Your task to perform on an android device: toggle show notifications on the lock screen Image 0: 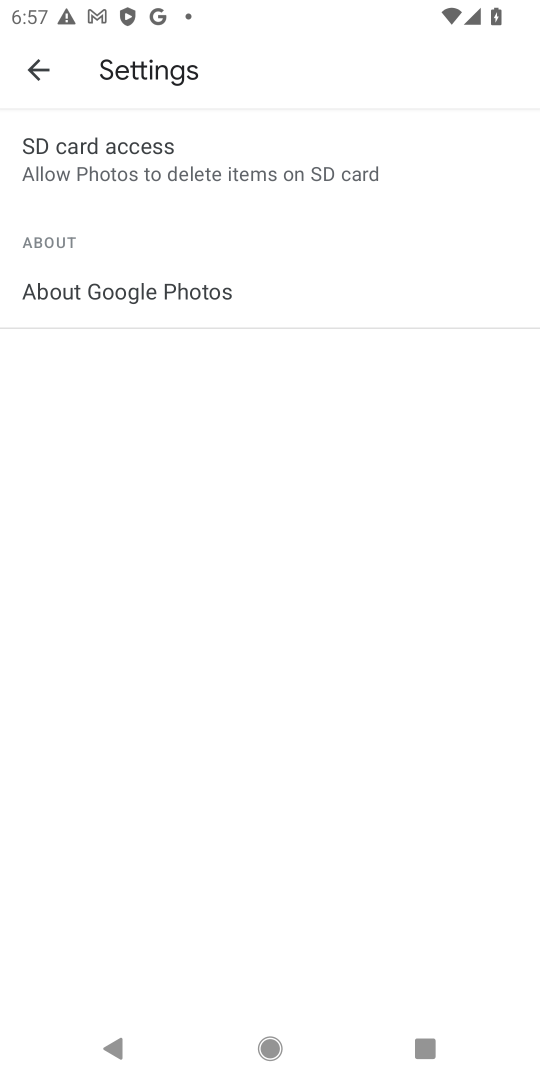
Step 0: press home button
Your task to perform on an android device: toggle show notifications on the lock screen Image 1: 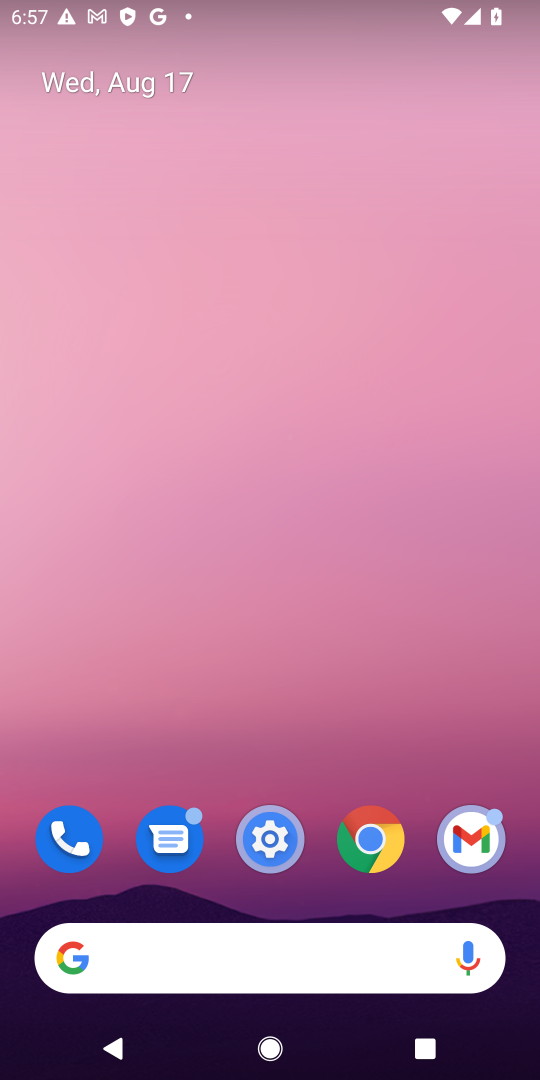
Step 1: click (275, 848)
Your task to perform on an android device: toggle show notifications on the lock screen Image 2: 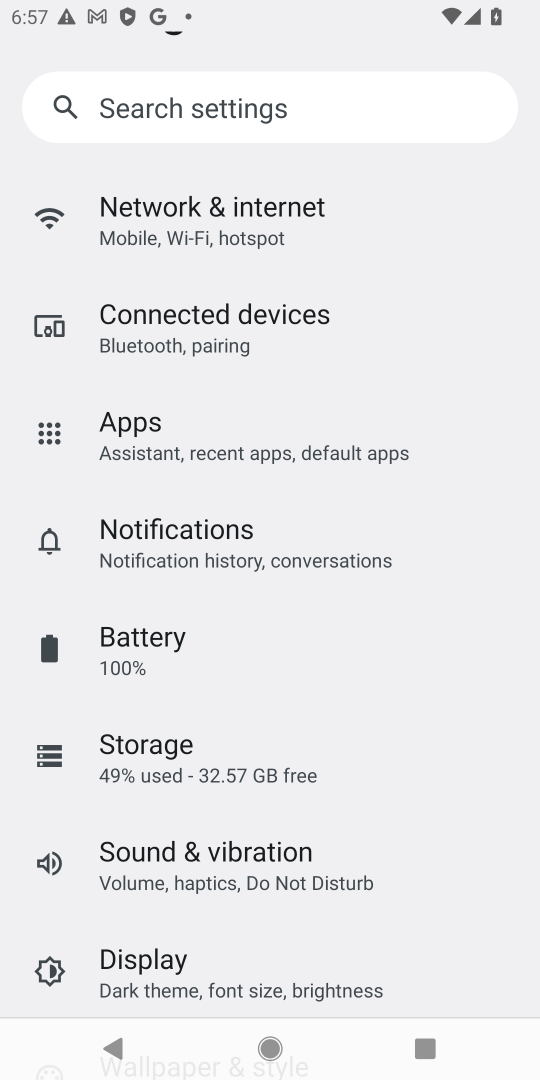
Step 2: drag from (277, 849) to (212, 247)
Your task to perform on an android device: toggle show notifications on the lock screen Image 3: 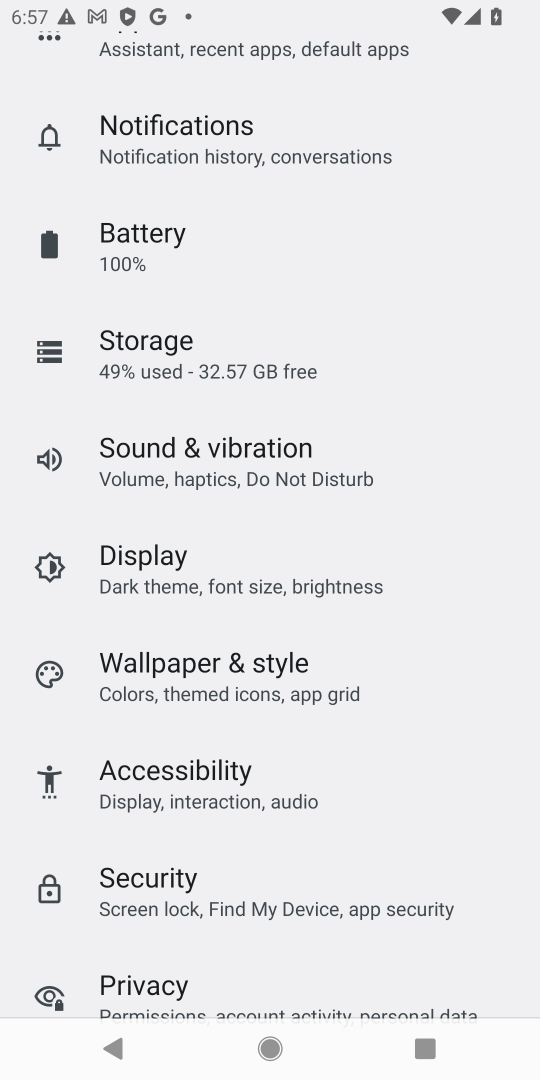
Step 3: click (176, 128)
Your task to perform on an android device: toggle show notifications on the lock screen Image 4: 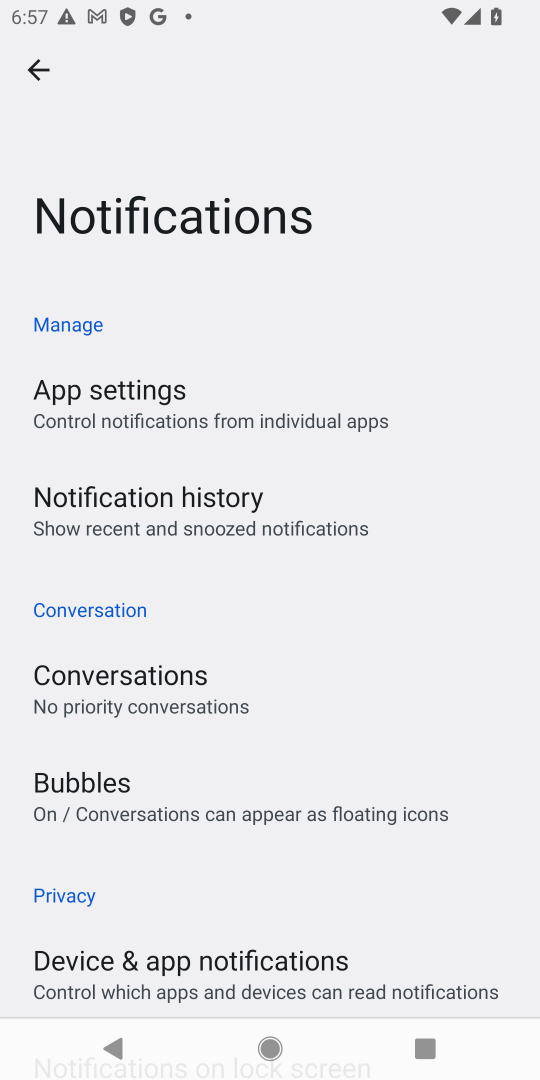
Step 4: drag from (155, 763) to (108, 375)
Your task to perform on an android device: toggle show notifications on the lock screen Image 5: 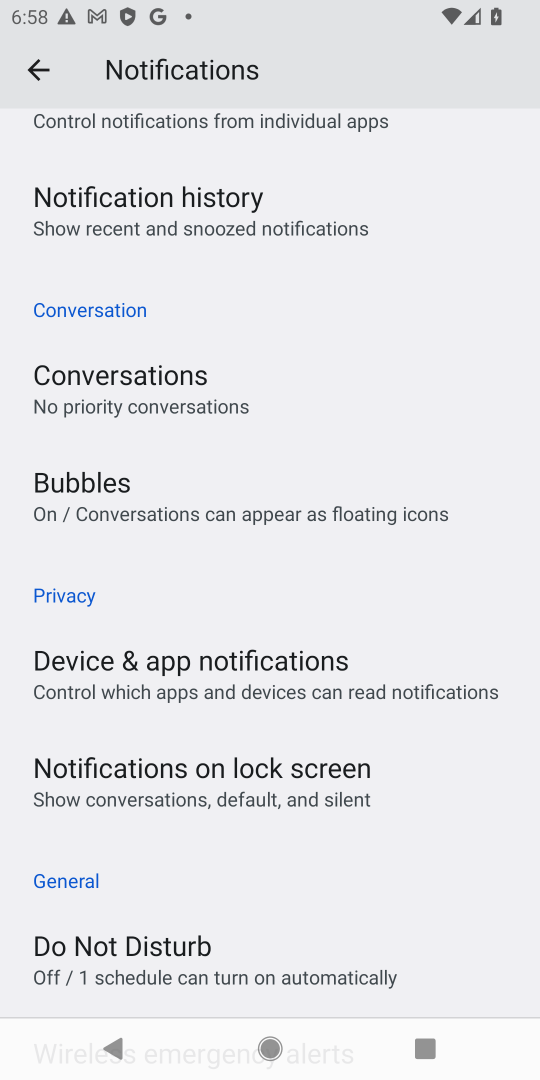
Step 5: click (254, 778)
Your task to perform on an android device: toggle show notifications on the lock screen Image 6: 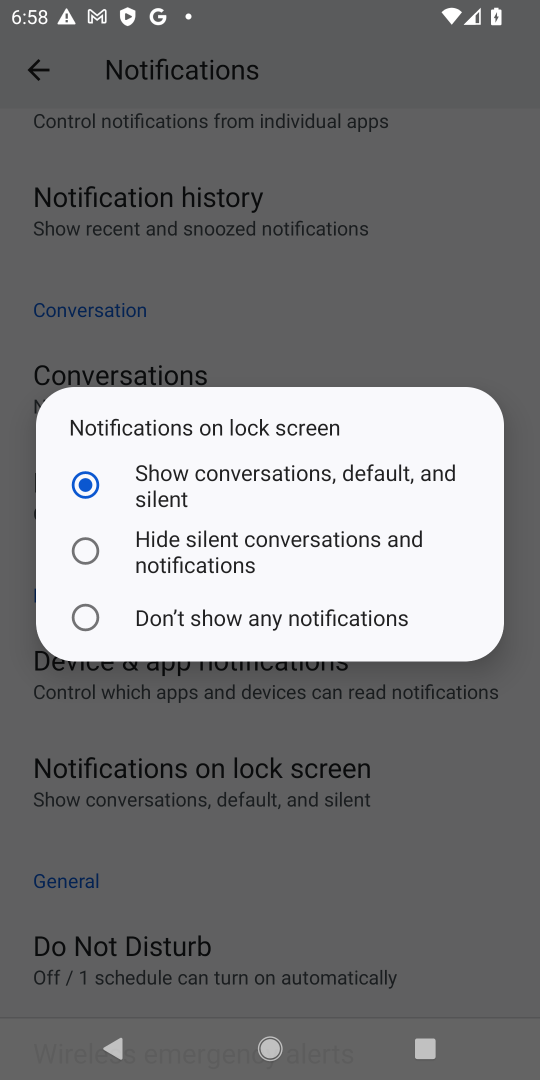
Step 6: click (169, 478)
Your task to perform on an android device: toggle show notifications on the lock screen Image 7: 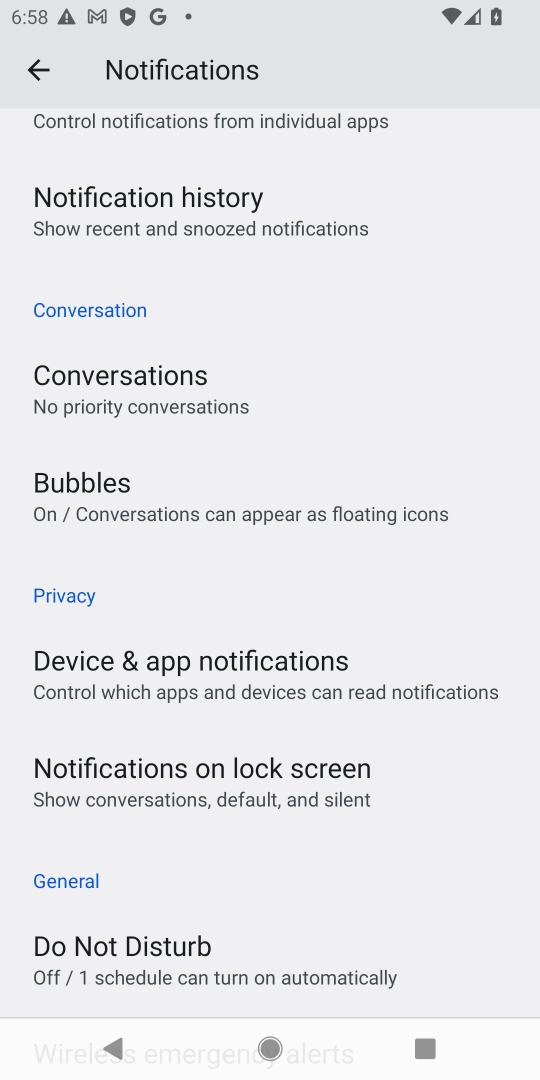
Step 7: task complete